Your task to perform on an android device: toggle airplane mode Image 0: 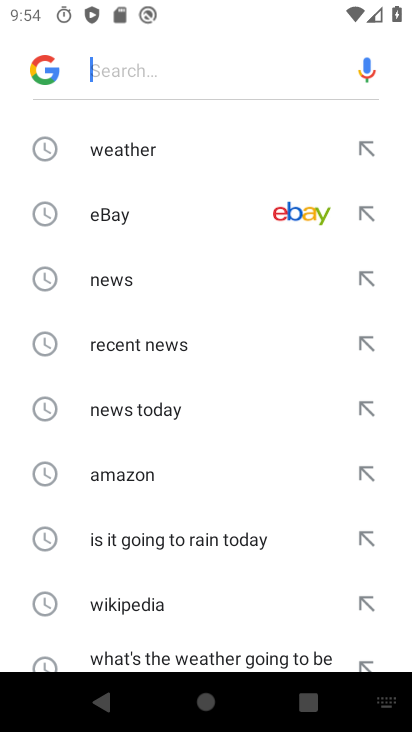
Step 0: press home button
Your task to perform on an android device: toggle airplane mode Image 1: 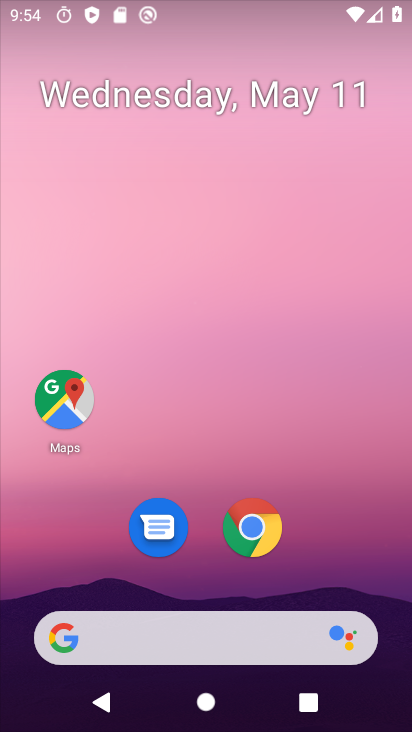
Step 1: drag from (240, 614) to (260, 125)
Your task to perform on an android device: toggle airplane mode Image 2: 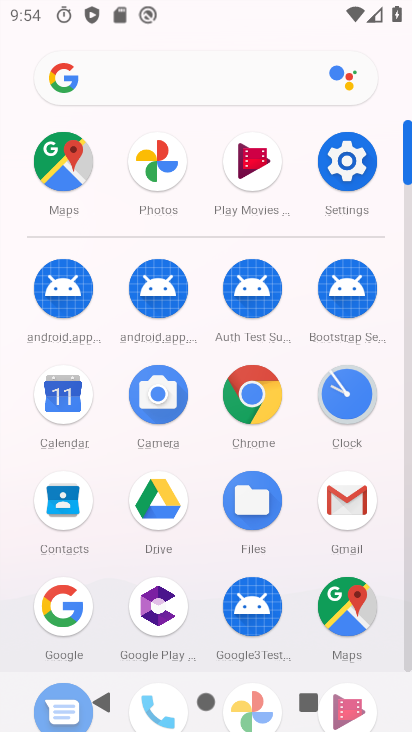
Step 2: click (363, 171)
Your task to perform on an android device: toggle airplane mode Image 3: 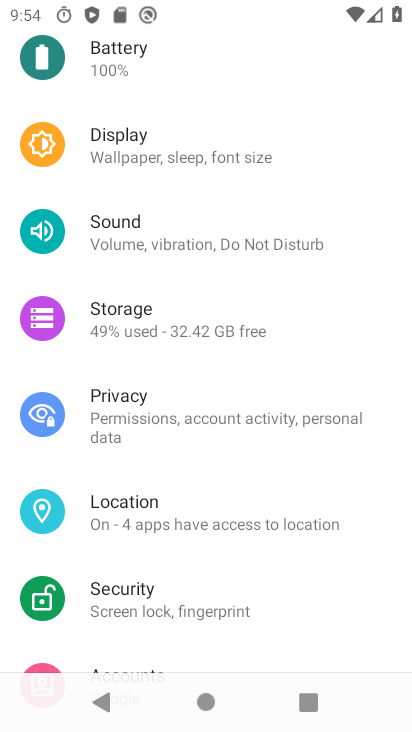
Step 3: drag from (246, 369) to (197, 616)
Your task to perform on an android device: toggle airplane mode Image 4: 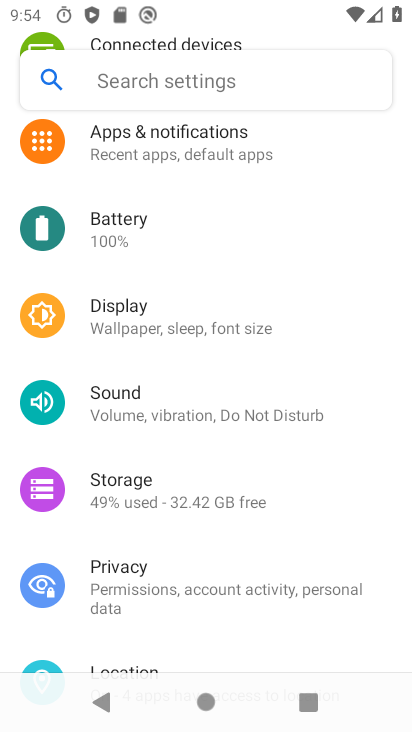
Step 4: drag from (247, 369) to (210, 589)
Your task to perform on an android device: toggle airplane mode Image 5: 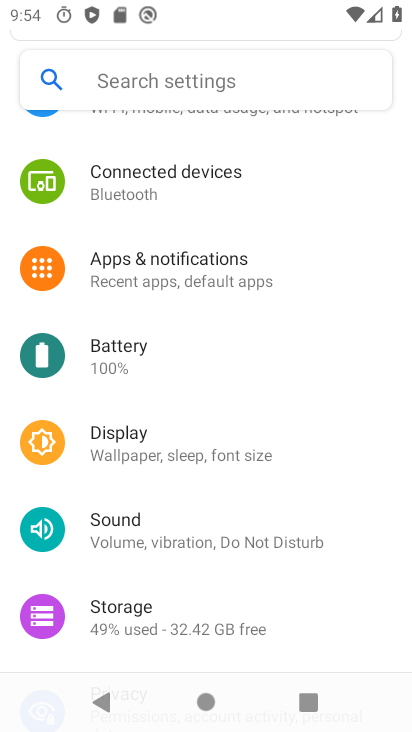
Step 5: drag from (221, 337) to (196, 586)
Your task to perform on an android device: toggle airplane mode Image 6: 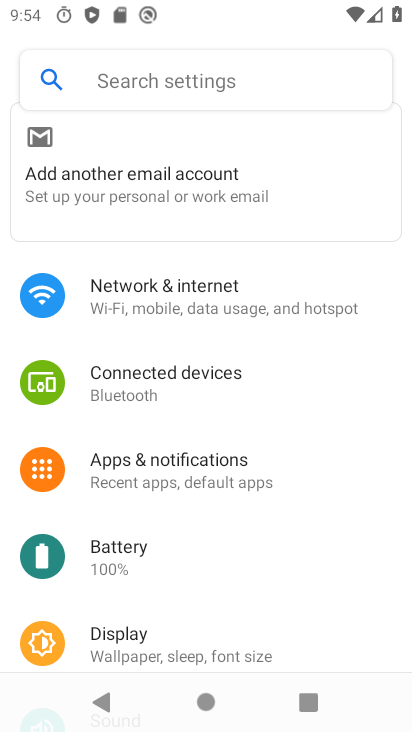
Step 6: drag from (222, 403) to (198, 551)
Your task to perform on an android device: toggle airplane mode Image 7: 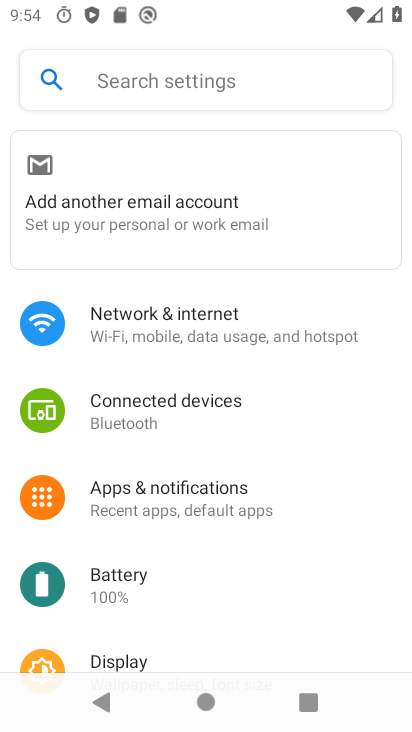
Step 7: drag from (200, 551) to (223, 392)
Your task to perform on an android device: toggle airplane mode Image 8: 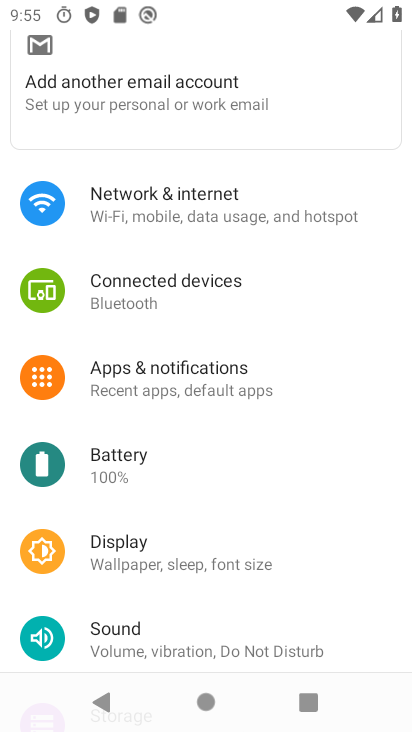
Step 8: drag from (286, 475) to (292, 225)
Your task to perform on an android device: toggle airplane mode Image 9: 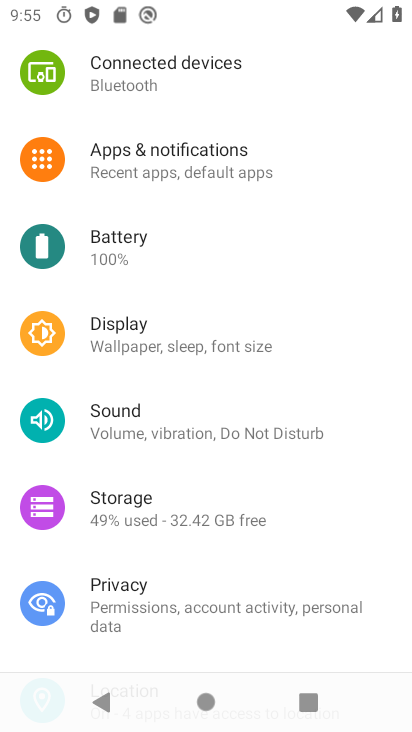
Step 9: drag from (268, 215) to (207, 439)
Your task to perform on an android device: toggle airplane mode Image 10: 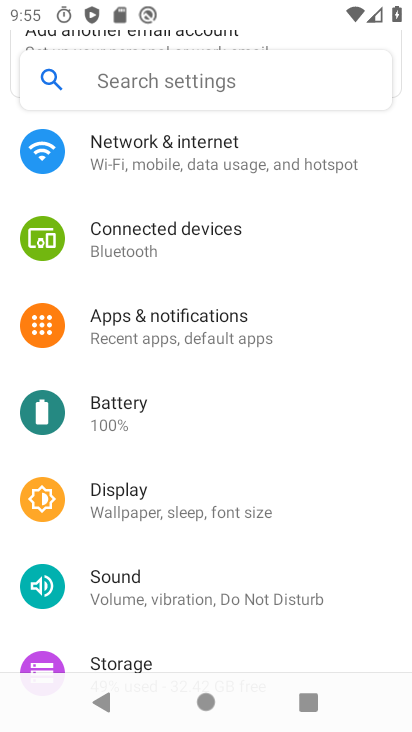
Step 10: click (274, 165)
Your task to perform on an android device: toggle airplane mode Image 11: 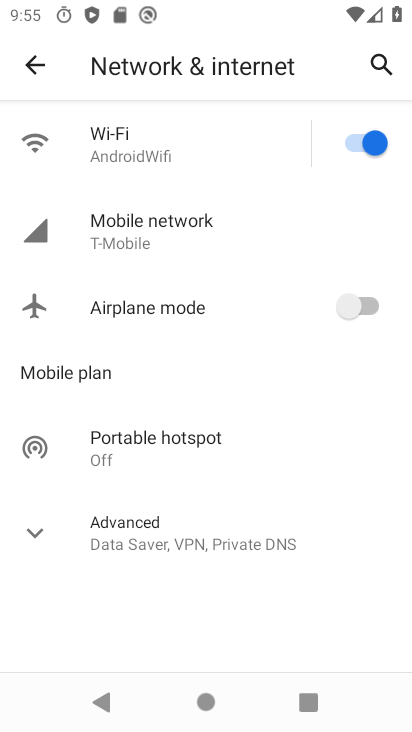
Step 11: click (370, 304)
Your task to perform on an android device: toggle airplane mode Image 12: 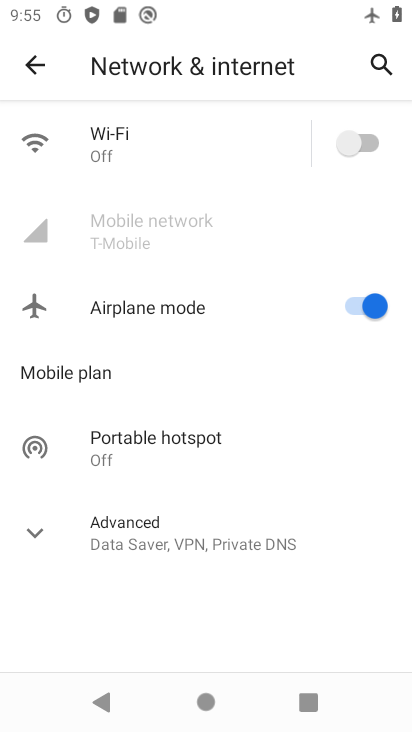
Step 12: task complete